Your task to perform on an android device: turn off priority inbox in the gmail app Image 0: 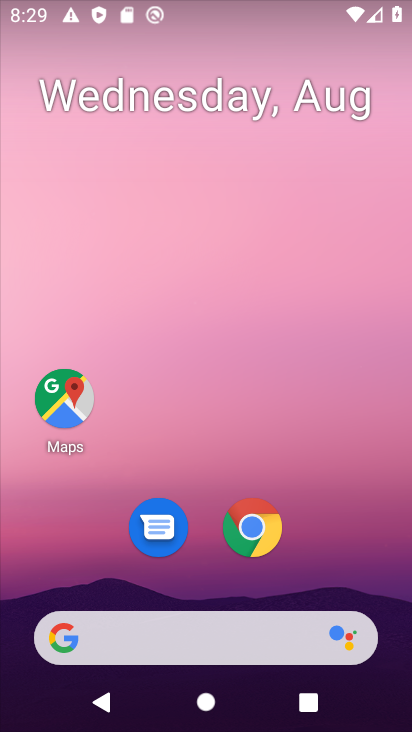
Step 0: drag from (204, 589) to (224, 45)
Your task to perform on an android device: turn off priority inbox in the gmail app Image 1: 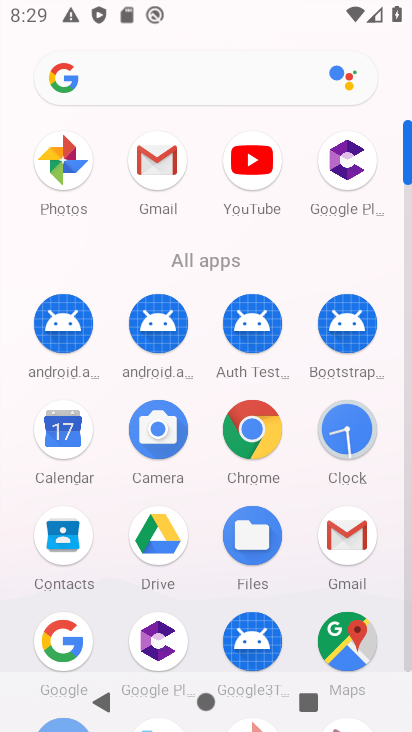
Step 1: click (155, 155)
Your task to perform on an android device: turn off priority inbox in the gmail app Image 2: 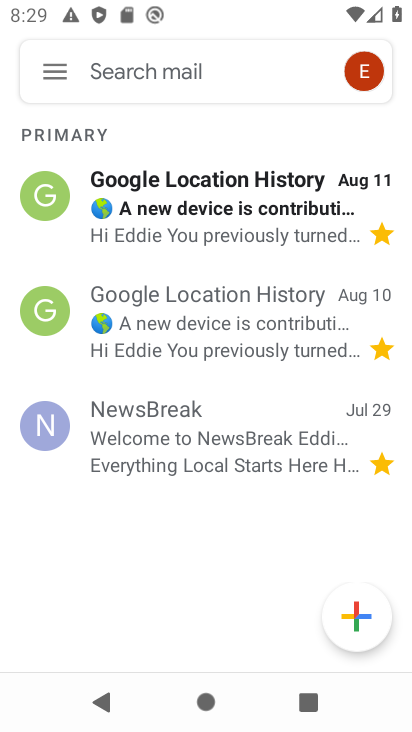
Step 2: click (54, 74)
Your task to perform on an android device: turn off priority inbox in the gmail app Image 3: 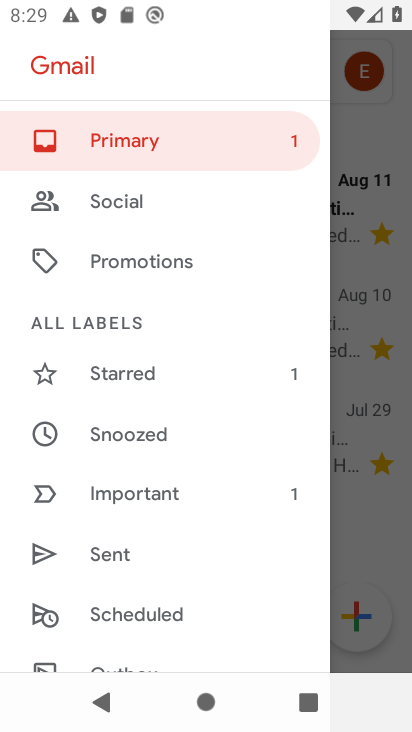
Step 3: drag from (112, 639) to (84, 119)
Your task to perform on an android device: turn off priority inbox in the gmail app Image 4: 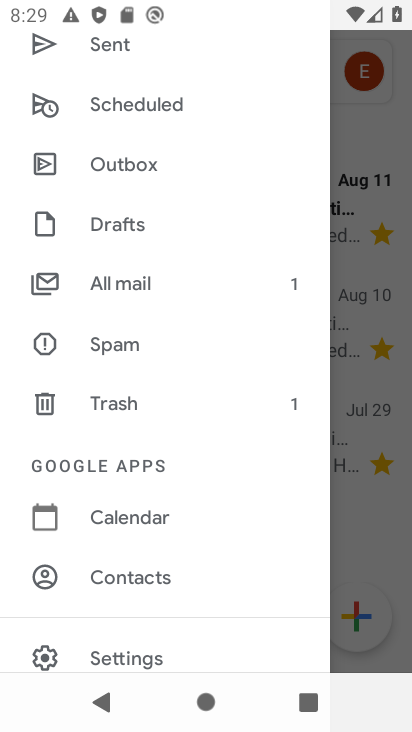
Step 4: click (130, 648)
Your task to perform on an android device: turn off priority inbox in the gmail app Image 5: 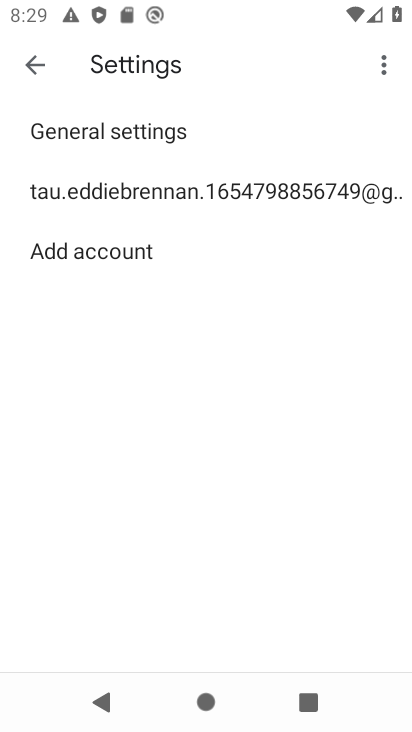
Step 5: click (176, 197)
Your task to perform on an android device: turn off priority inbox in the gmail app Image 6: 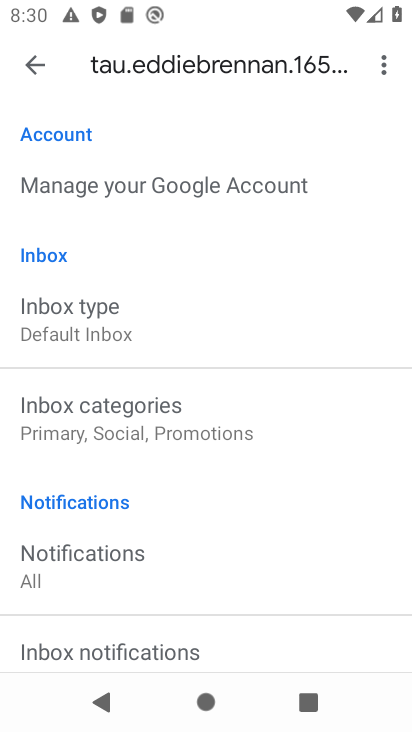
Step 6: click (87, 325)
Your task to perform on an android device: turn off priority inbox in the gmail app Image 7: 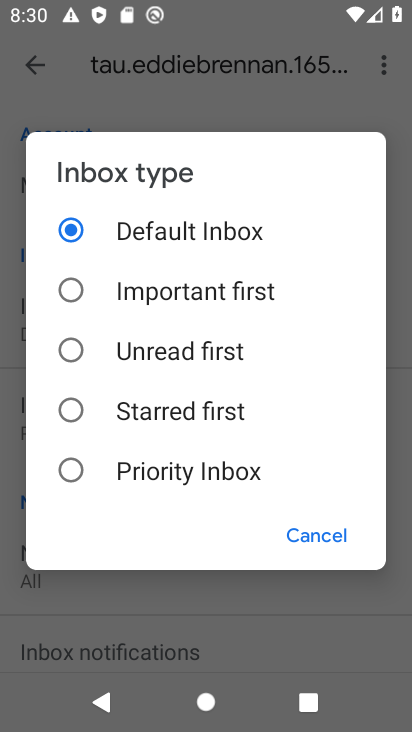
Step 7: task complete